Your task to perform on an android device: find which apps use the phone's location Image 0: 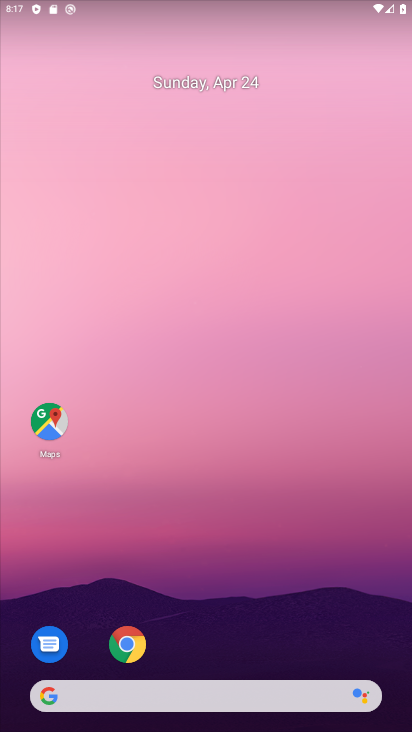
Step 0: drag from (273, 587) to (174, 244)
Your task to perform on an android device: find which apps use the phone's location Image 1: 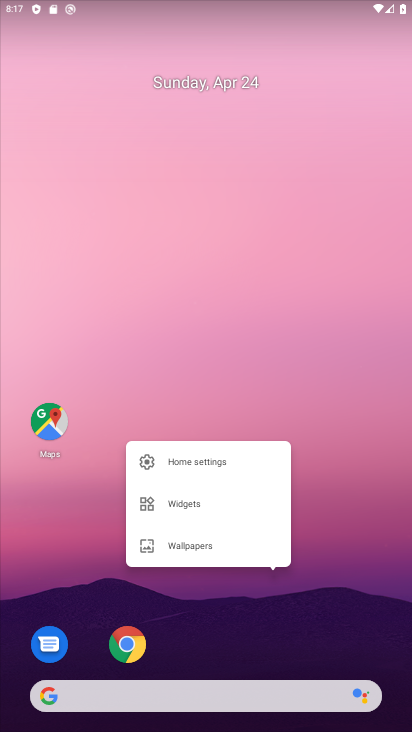
Step 1: click (380, 669)
Your task to perform on an android device: find which apps use the phone's location Image 2: 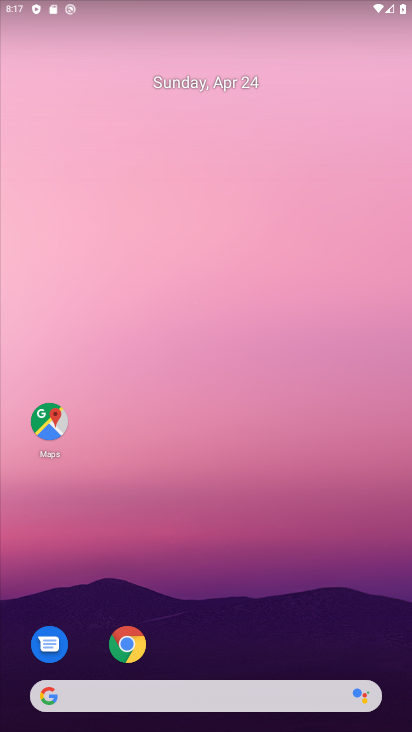
Step 2: drag from (380, 669) to (296, 185)
Your task to perform on an android device: find which apps use the phone's location Image 3: 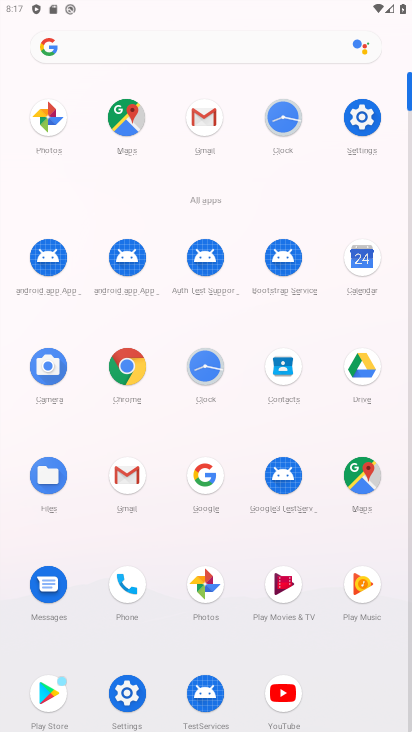
Step 3: click (132, 704)
Your task to perform on an android device: find which apps use the phone's location Image 4: 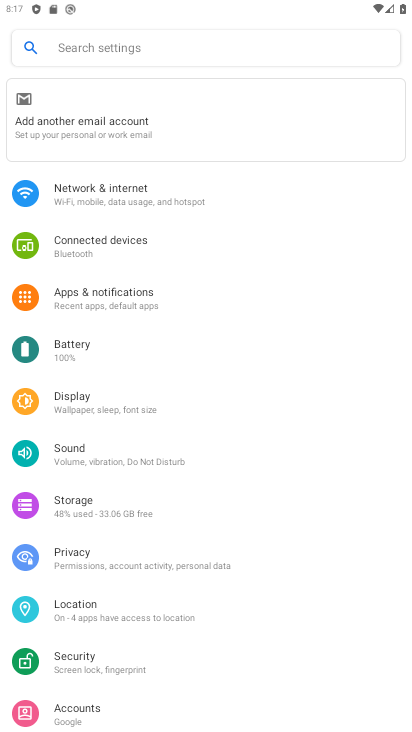
Step 4: click (161, 623)
Your task to perform on an android device: find which apps use the phone's location Image 5: 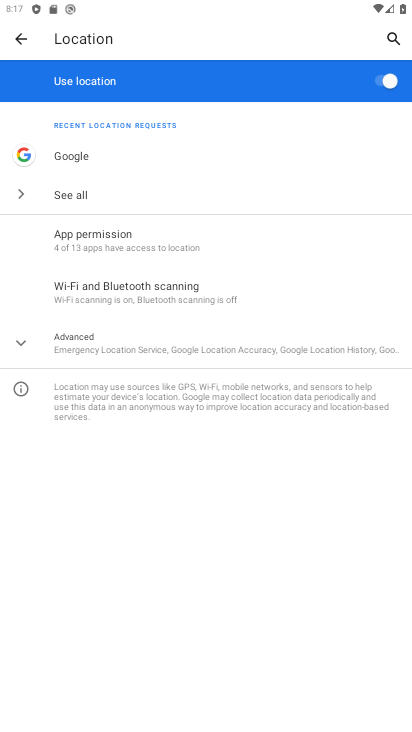
Step 5: click (122, 231)
Your task to perform on an android device: find which apps use the phone's location Image 6: 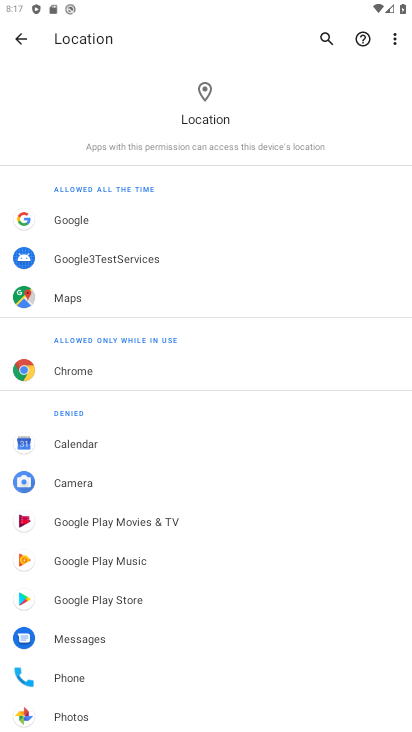
Step 6: task complete